Your task to perform on an android device: Go to location settings Image 0: 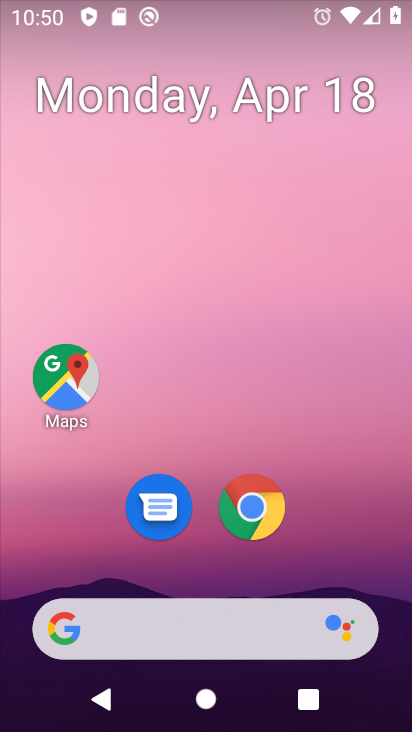
Step 0: drag from (269, 660) to (321, 97)
Your task to perform on an android device: Go to location settings Image 1: 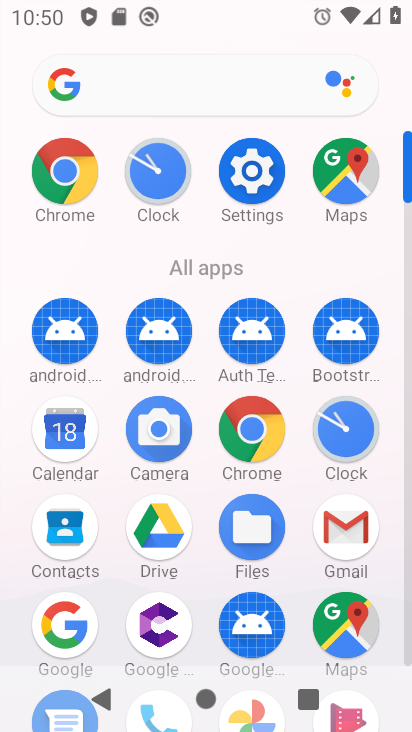
Step 1: click (271, 188)
Your task to perform on an android device: Go to location settings Image 2: 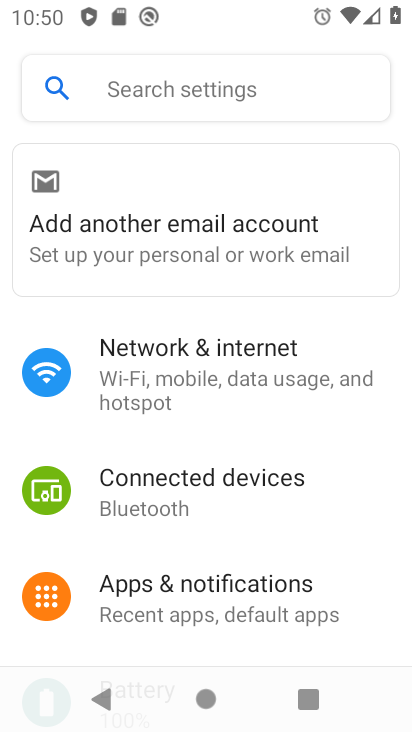
Step 2: click (242, 110)
Your task to perform on an android device: Go to location settings Image 3: 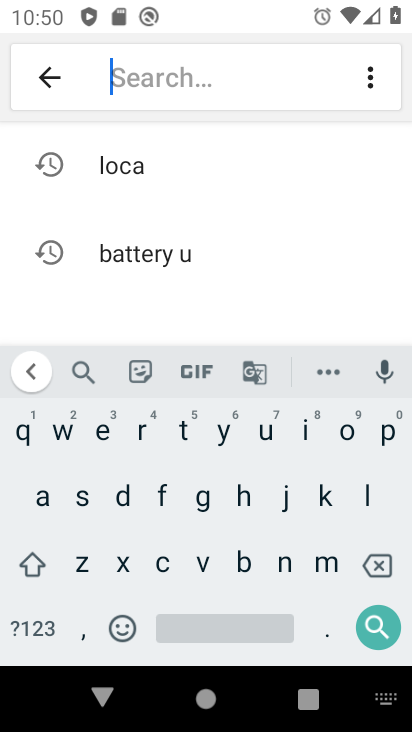
Step 3: click (161, 172)
Your task to perform on an android device: Go to location settings Image 4: 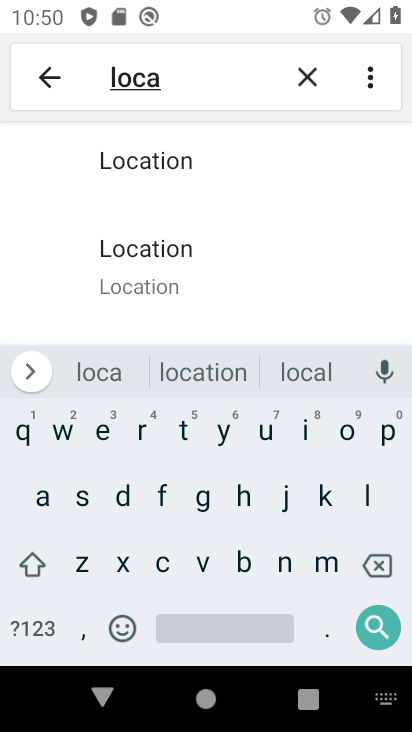
Step 4: click (153, 267)
Your task to perform on an android device: Go to location settings Image 5: 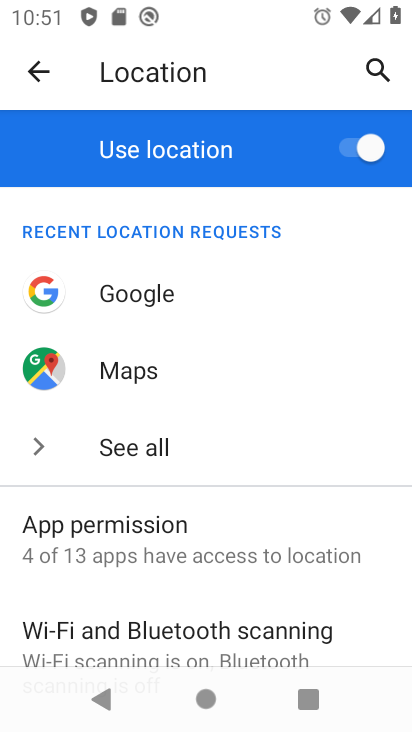
Step 5: drag from (135, 609) to (148, 475)
Your task to perform on an android device: Go to location settings Image 6: 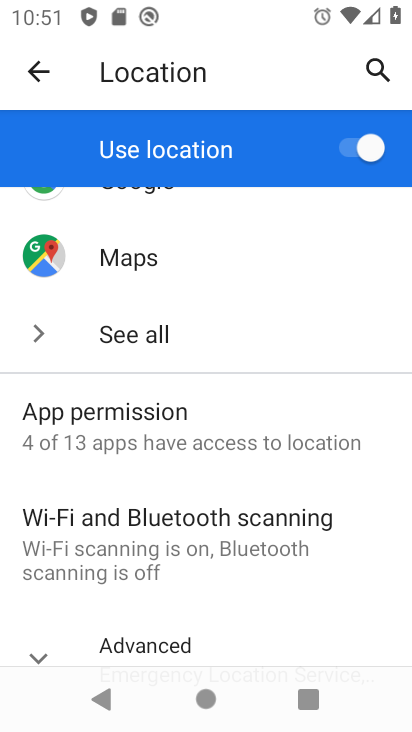
Step 6: click (78, 644)
Your task to perform on an android device: Go to location settings Image 7: 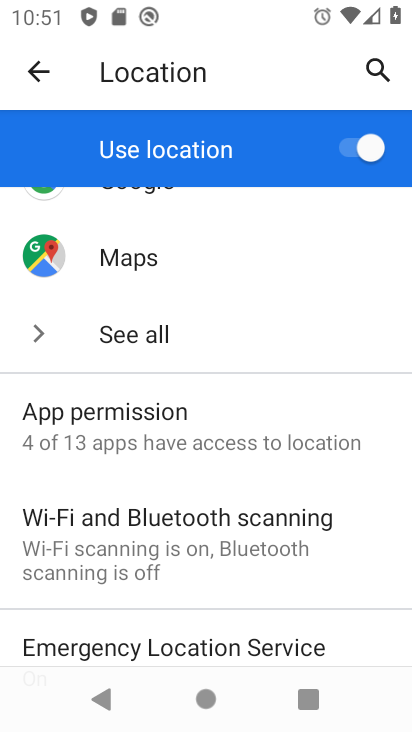
Step 7: task complete